Your task to perform on an android device: add a label to a message in the gmail app Image 0: 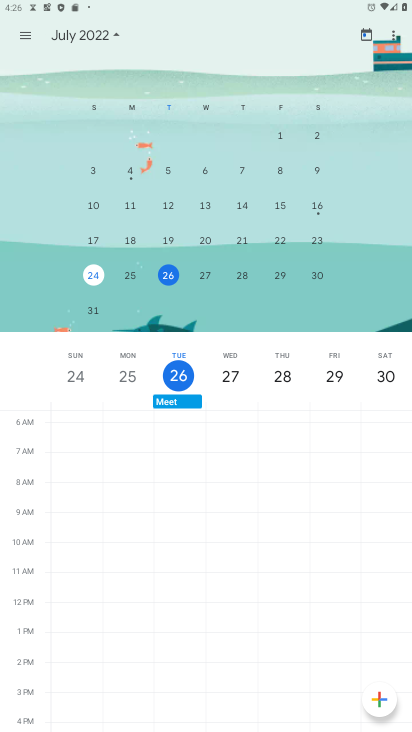
Step 0: press home button
Your task to perform on an android device: add a label to a message in the gmail app Image 1: 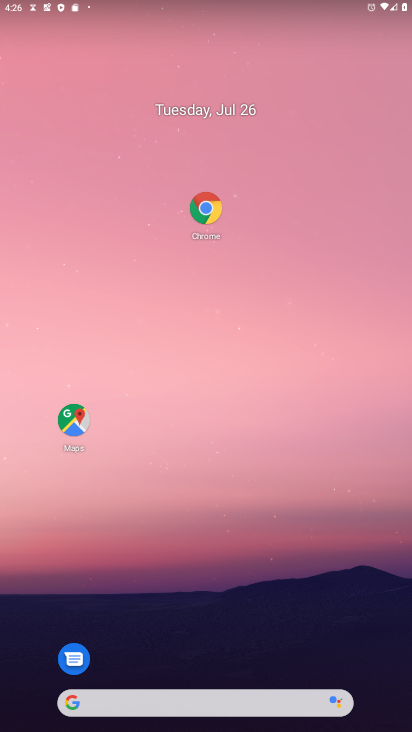
Step 1: drag from (195, 348) to (202, 179)
Your task to perform on an android device: add a label to a message in the gmail app Image 2: 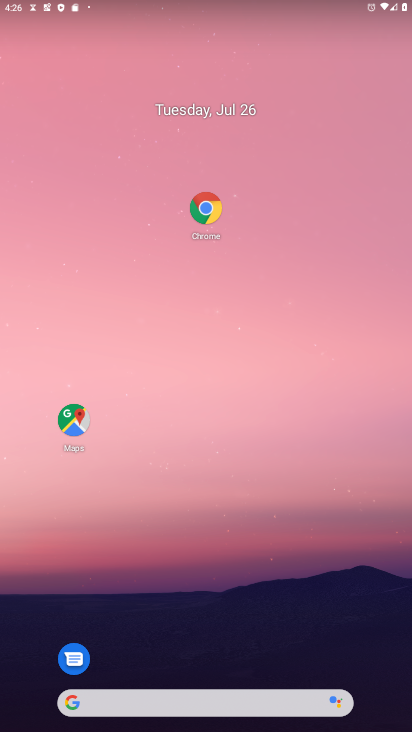
Step 2: drag from (192, 383) to (225, 32)
Your task to perform on an android device: add a label to a message in the gmail app Image 3: 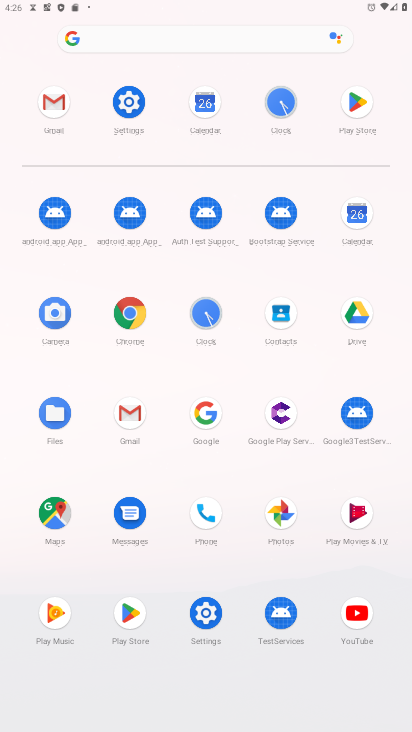
Step 3: click (52, 123)
Your task to perform on an android device: add a label to a message in the gmail app Image 4: 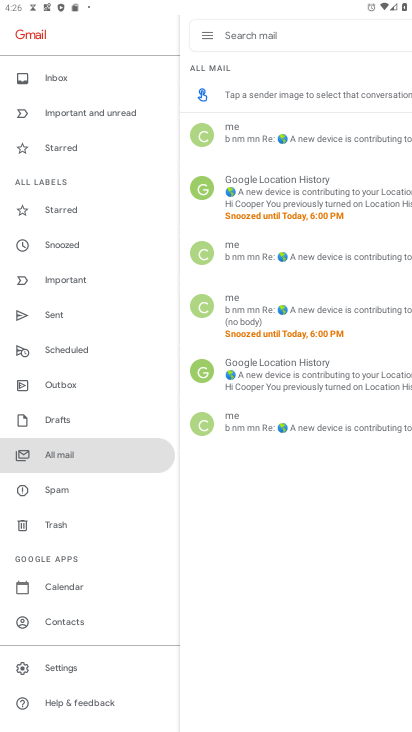
Step 4: click (253, 183)
Your task to perform on an android device: add a label to a message in the gmail app Image 5: 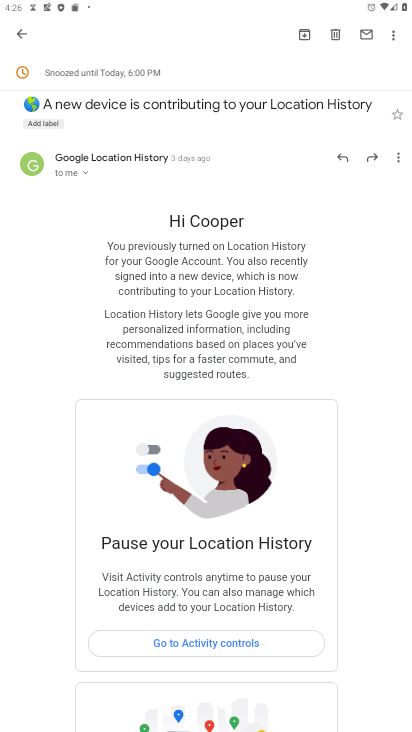
Step 5: click (47, 121)
Your task to perform on an android device: add a label to a message in the gmail app Image 6: 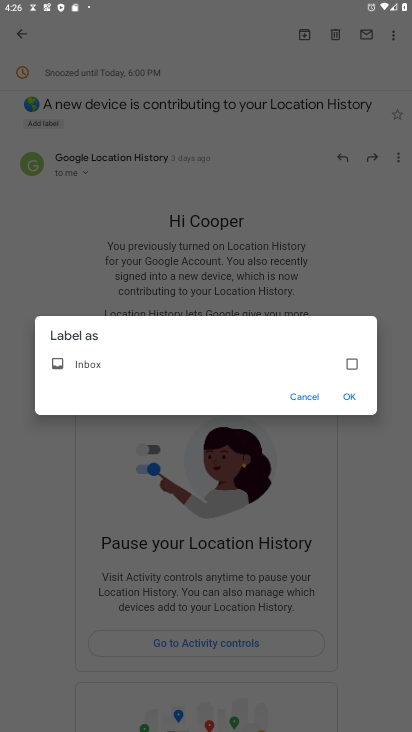
Step 6: click (355, 363)
Your task to perform on an android device: add a label to a message in the gmail app Image 7: 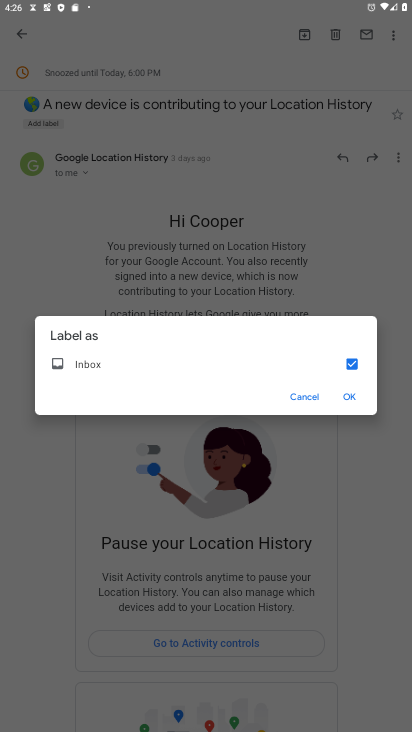
Step 7: click (343, 400)
Your task to perform on an android device: add a label to a message in the gmail app Image 8: 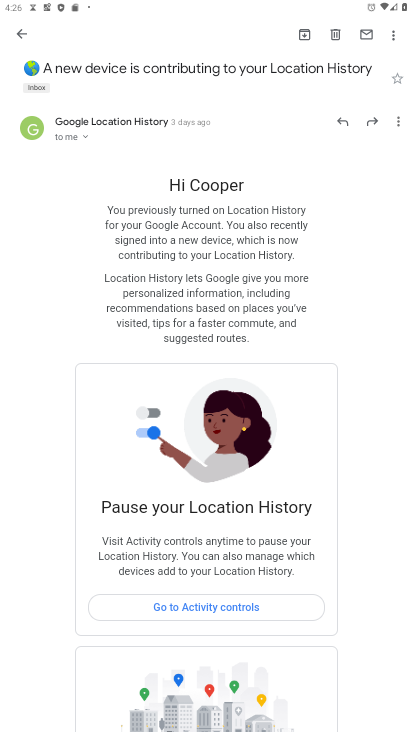
Step 8: task complete